Your task to perform on an android device: turn on sleep mode Image 0: 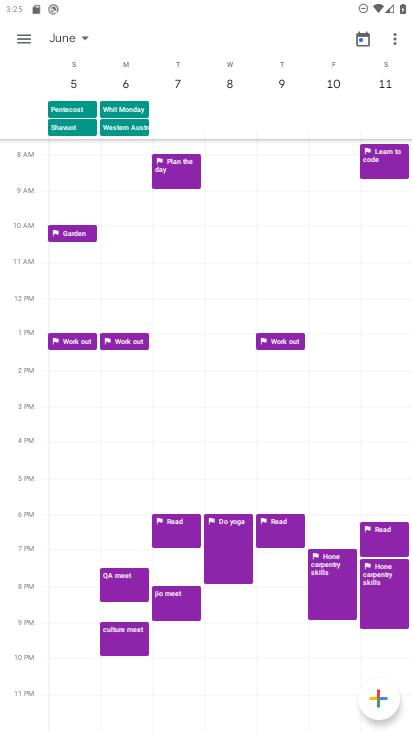
Step 0: press home button
Your task to perform on an android device: turn on sleep mode Image 1: 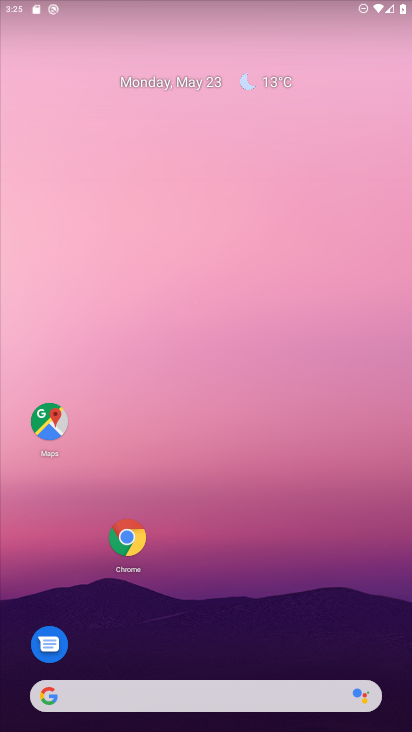
Step 1: drag from (332, 565) to (168, 65)
Your task to perform on an android device: turn on sleep mode Image 2: 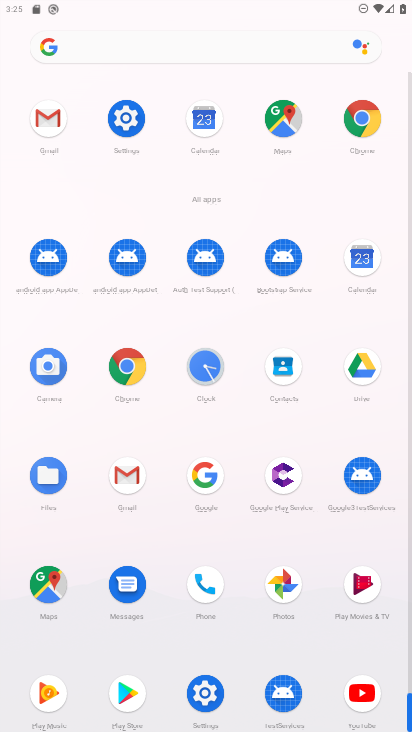
Step 2: click (128, 134)
Your task to perform on an android device: turn on sleep mode Image 3: 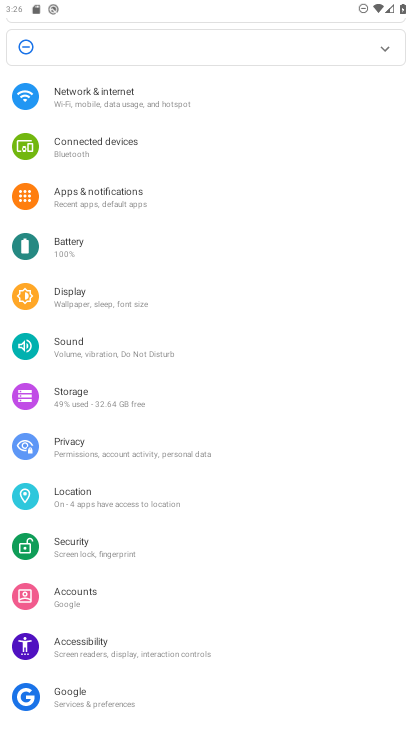
Step 3: click (79, 311)
Your task to perform on an android device: turn on sleep mode Image 4: 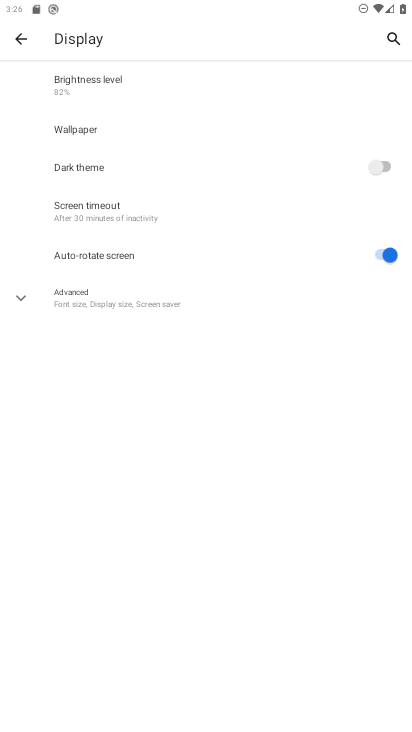
Step 4: click (120, 210)
Your task to perform on an android device: turn on sleep mode Image 5: 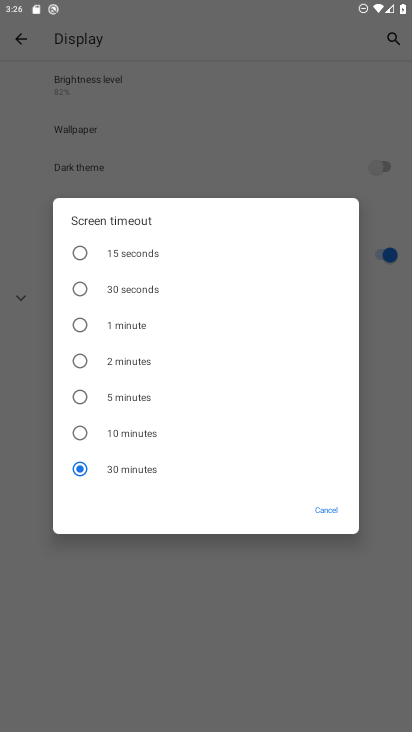
Step 5: task complete